Your task to perform on an android device: Open internet settings Image 0: 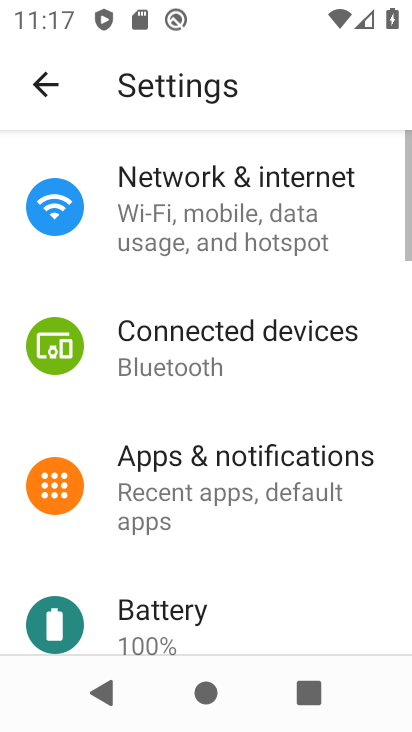
Step 0: press home button
Your task to perform on an android device: Open internet settings Image 1: 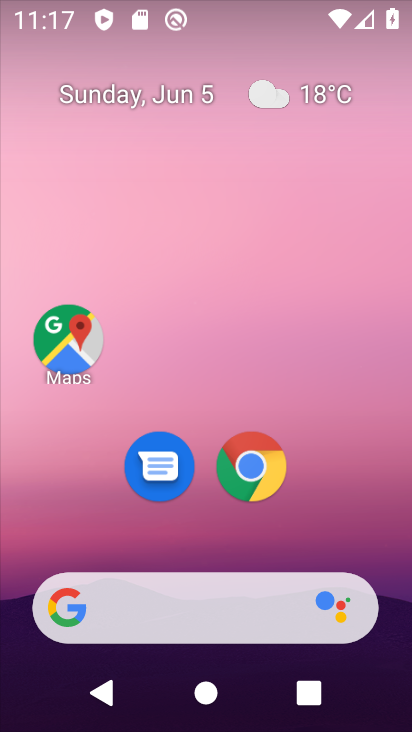
Step 1: drag from (355, 508) to (366, 124)
Your task to perform on an android device: Open internet settings Image 2: 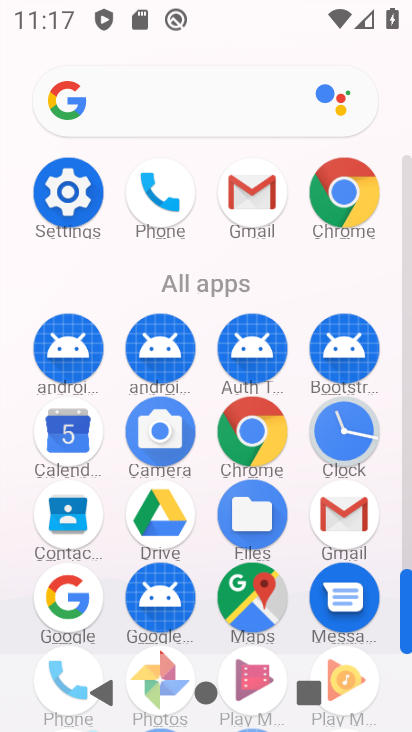
Step 2: click (69, 172)
Your task to perform on an android device: Open internet settings Image 3: 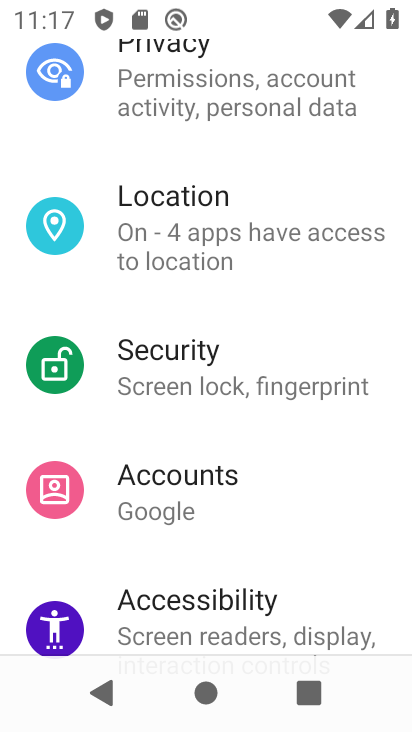
Step 3: drag from (289, 179) to (284, 491)
Your task to perform on an android device: Open internet settings Image 4: 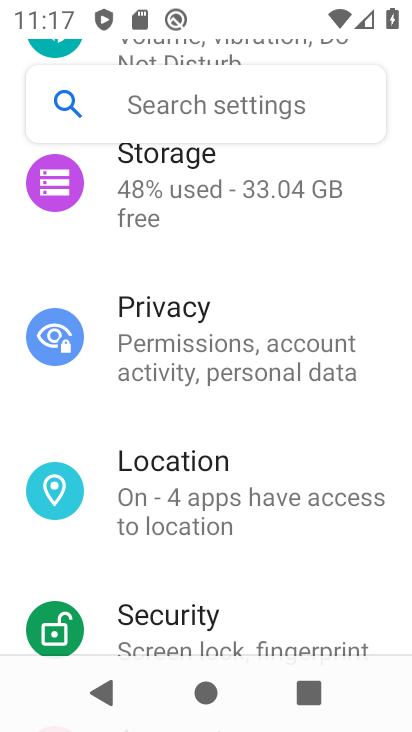
Step 4: drag from (261, 223) to (291, 593)
Your task to perform on an android device: Open internet settings Image 5: 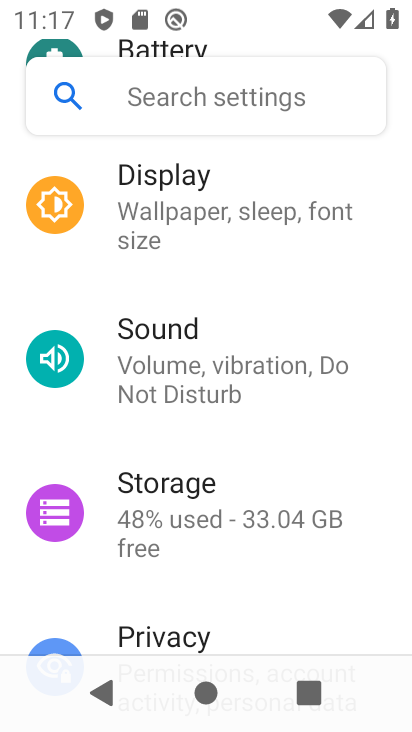
Step 5: drag from (262, 208) to (270, 594)
Your task to perform on an android device: Open internet settings Image 6: 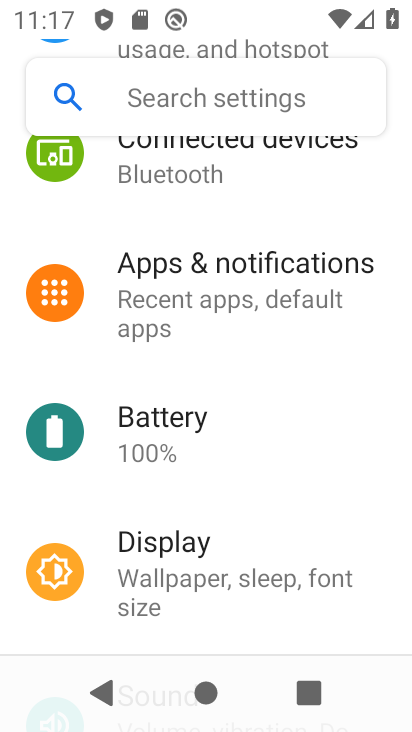
Step 6: drag from (236, 250) to (237, 559)
Your task to perform on an android device: Open internet settings Image 7: 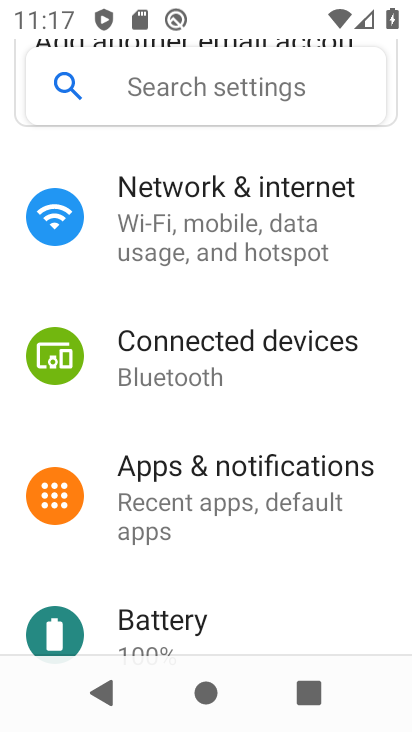
Step 7: click (217, 218)
Your task to perform on an android device: Open internet settings Image 8: 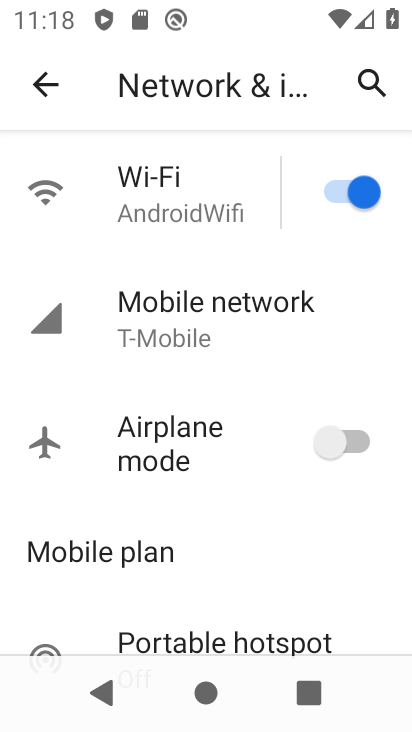
Step 8: task complete